Your task to perform on an android device: change alarm snooze length Image 0: 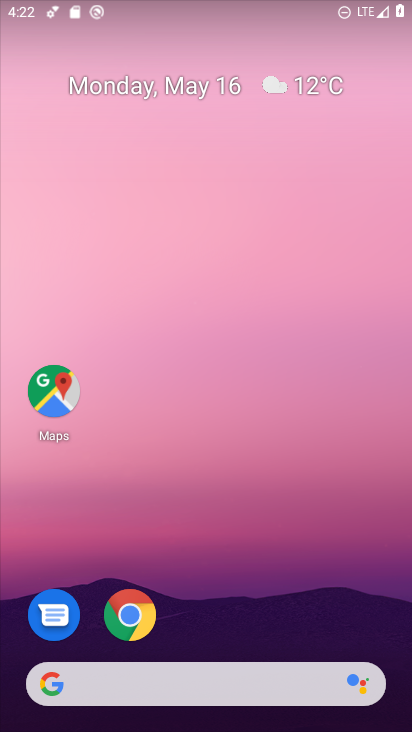
Step 0: drag from (202, 726) to (202, 222)
Your task to perform on an android device: change alarm snooze length Image 1: 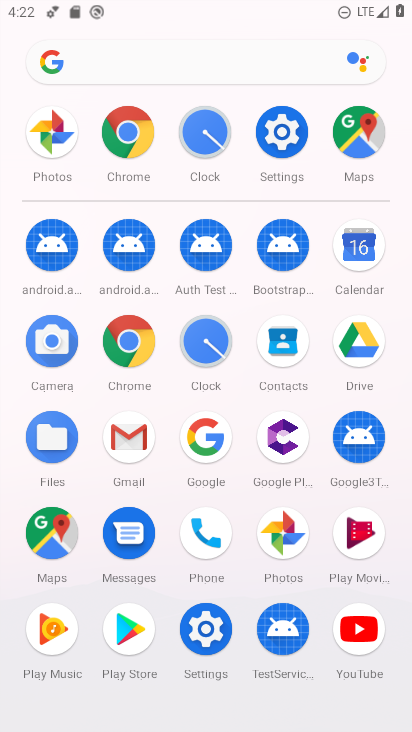
Step 1: click (197, 351)
Your task to perform on an android device: change alarm snooze length Image 2: 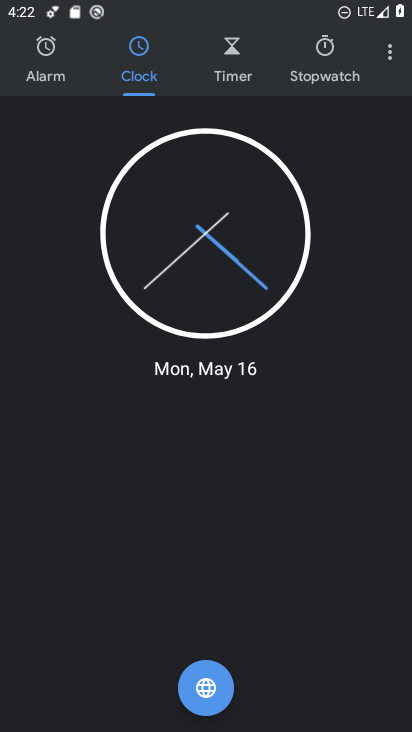
Step 2: click (392, 55)
Your task to perform on an android device: change alarm snooze length Image 3: 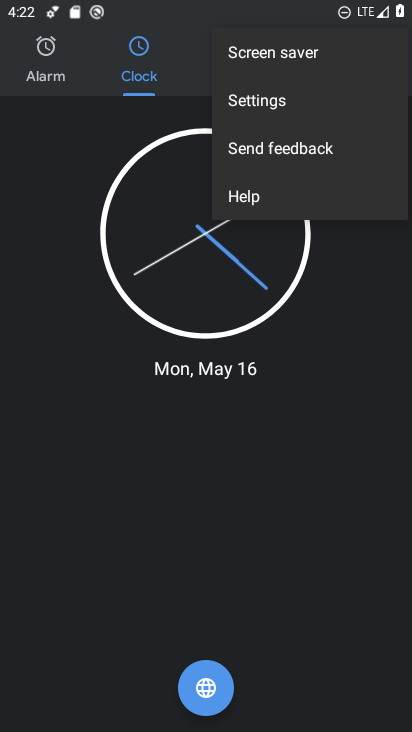
Step 3: click (280, 99)
Your task to perform on an android device: change alarm snooze length Image 4: 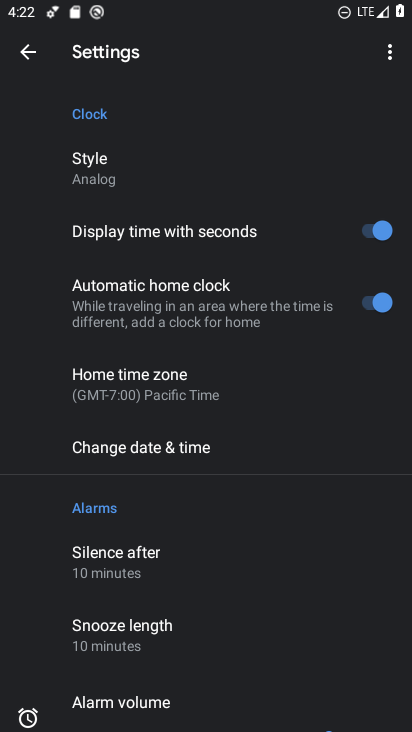
Step 4: click (107, 627)
Your task to perform on an android device: change alarm snooze length Image 5: 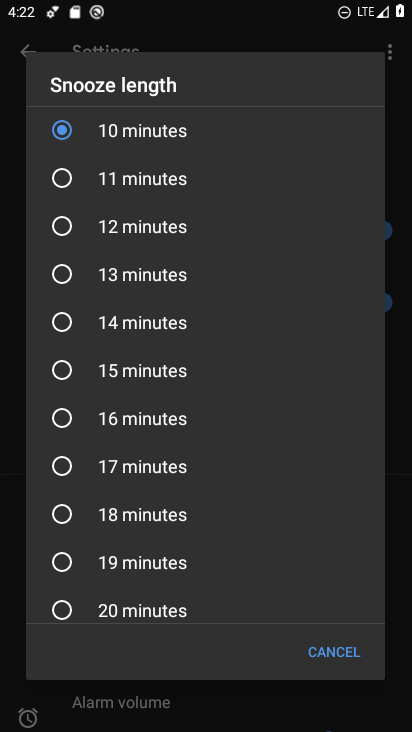
Step 5: click (59, 468)
Your task to perform on an android device: change alarm snooze length Image 6: 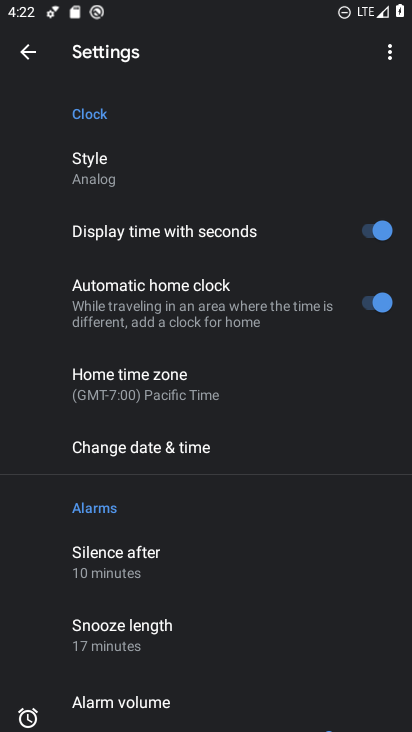
Step 6: task complete